Your task to perform on an android device: Open Google Chrome Image 0: 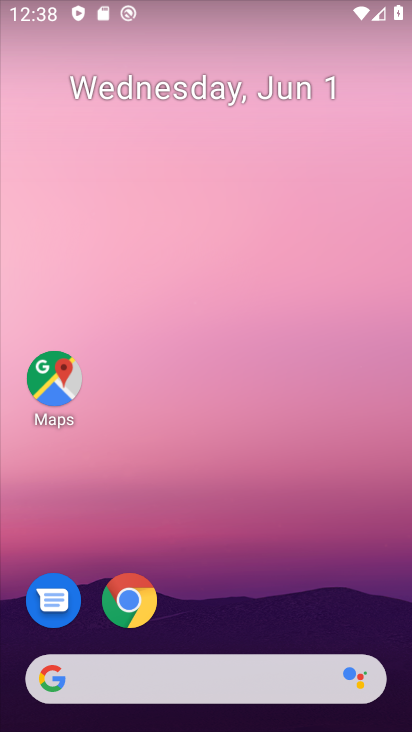
Step 0: click (131, 602)
Your task to perform on an android device: Open Google Chrome Image 1: 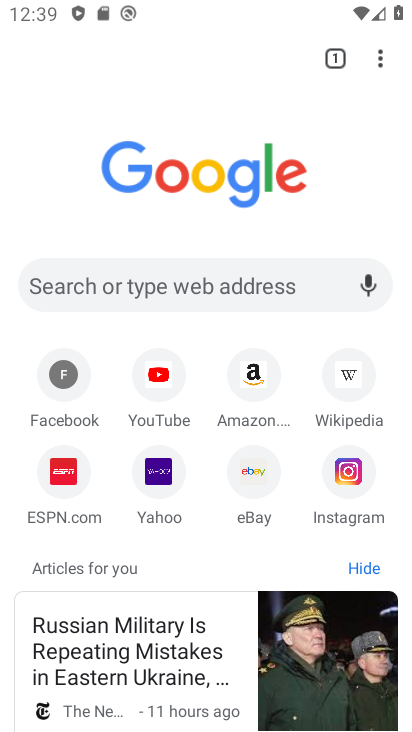
Step 1: task complete